Your task to perform on an android device: manage bookmarks in the chrome app Image 0: 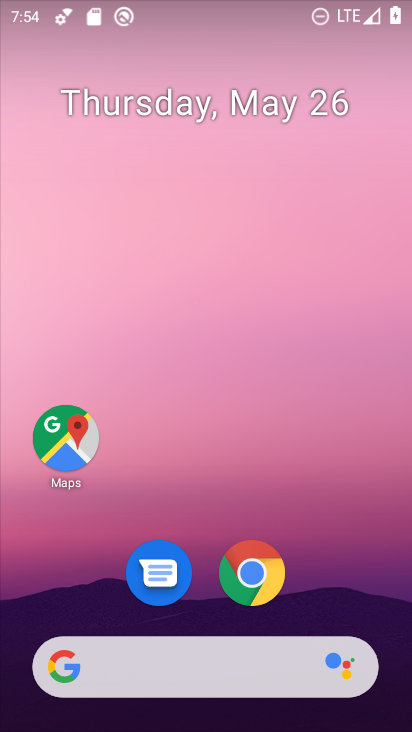
Step 0: drag from (326, 552) to (262, 57)
Your task to perform on an android device: manage bookmarks in the chrome app Image 1: 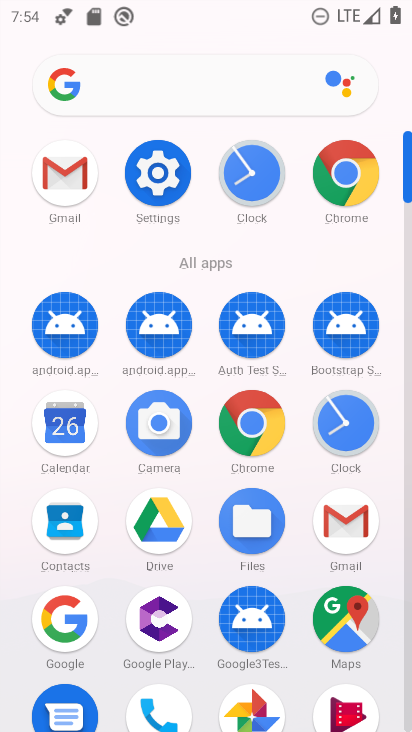
Step 1: drag from (16, 563) to (18, 238)
Your task to perform on an android device: manage bookmarks in the chrome app Image 2: 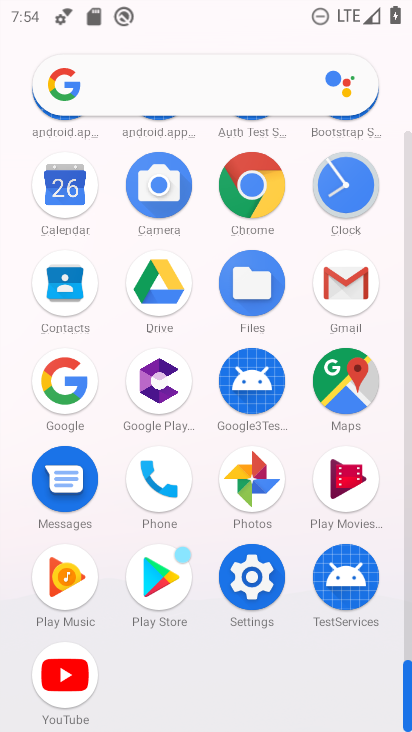
Step 2: click (254, 180)
Your task to perform on an android device: manage bookmarks in the chrome app Image 3: 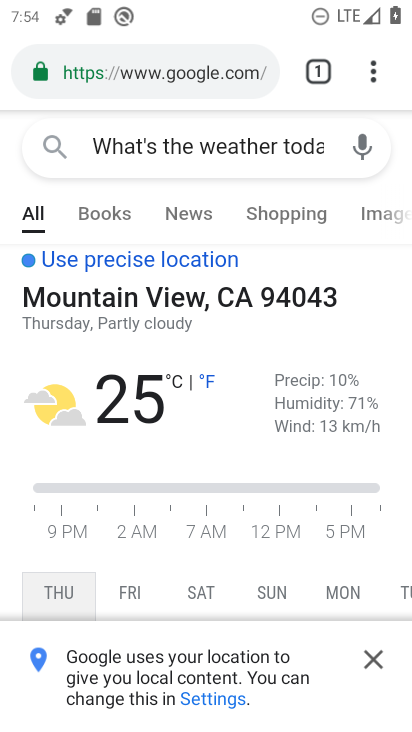
Step 3: drag from (375, 68) to (176, 260)
Your task to perform on an android device: manage bookmarks in the chrome app Image 4: 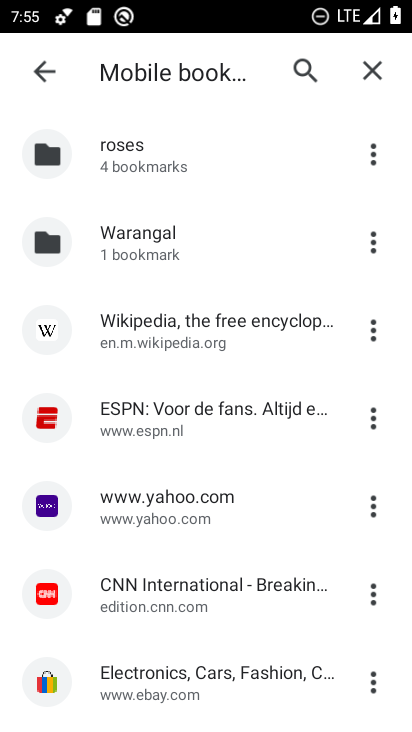
Step 4: click (368, 156)
Your task to perform on an android device: manage bookmarks in the chrome app Image 5: 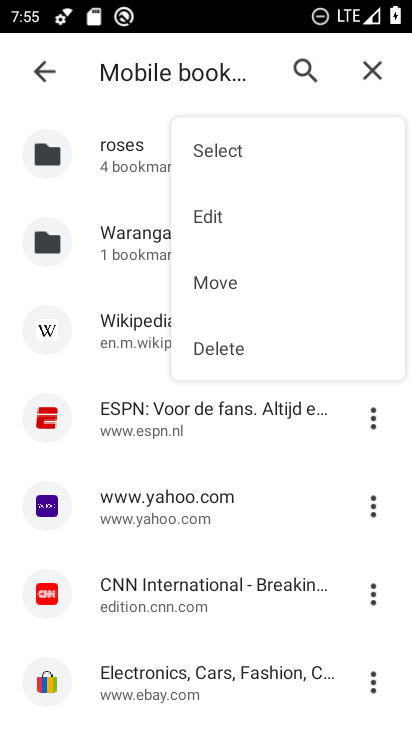
Step 5: click (278, 347)
Your task to perform on an android device: manage bookmarks in the chrome app Image 6: 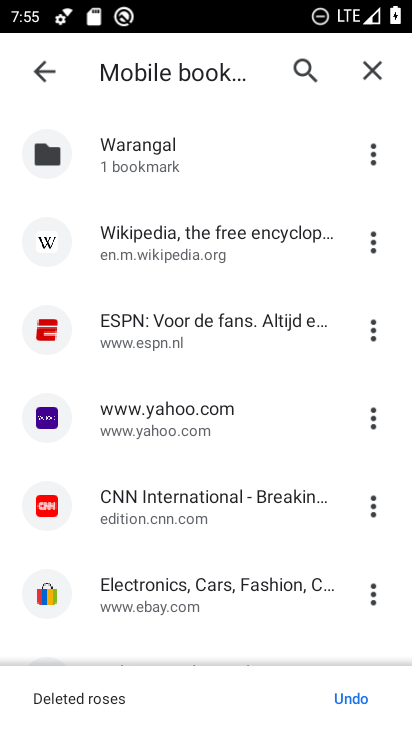
Step 6: click (374, 157)
Your task to perform on an android device: manage bookmarks in the chrome app Image 7: 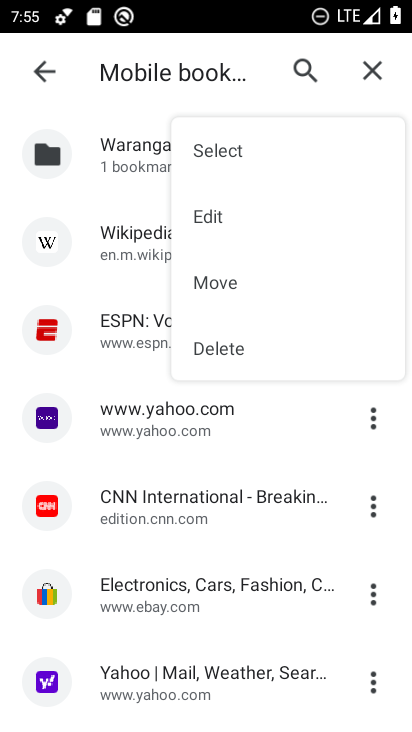
Step 7: click (243, 361)
Your task to perform on an android device: manage bookmarks in the chrome app Image 8: 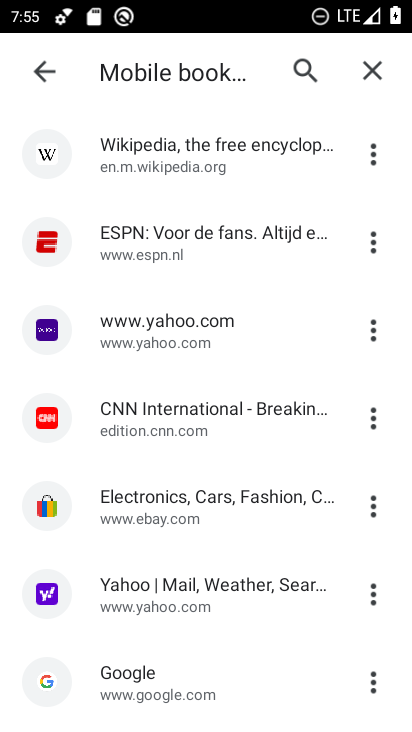
Step 8: task complete